Your task to perform on an android device: make emails show in primary in the gmail app Image 0: 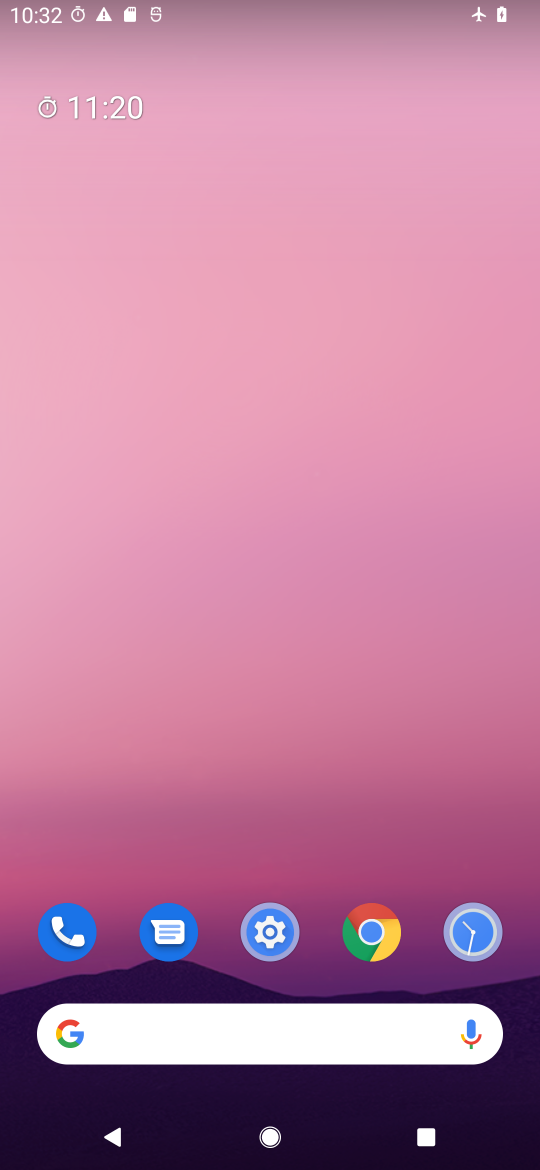
Step 0: drag from (282, 862) to (295, 198)
Your task to perform on an android device: make emails show in primary in the gmail app Image 1: 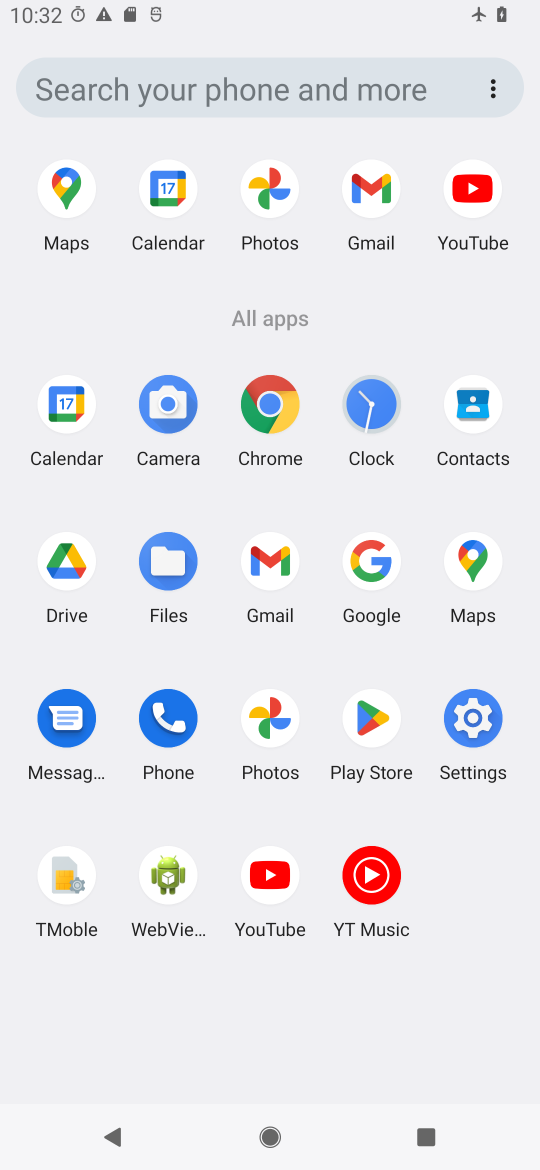
Step 1: click (257, 566)
Your task to perform on an android device: make emails show in primary in the gmail app Image 2: 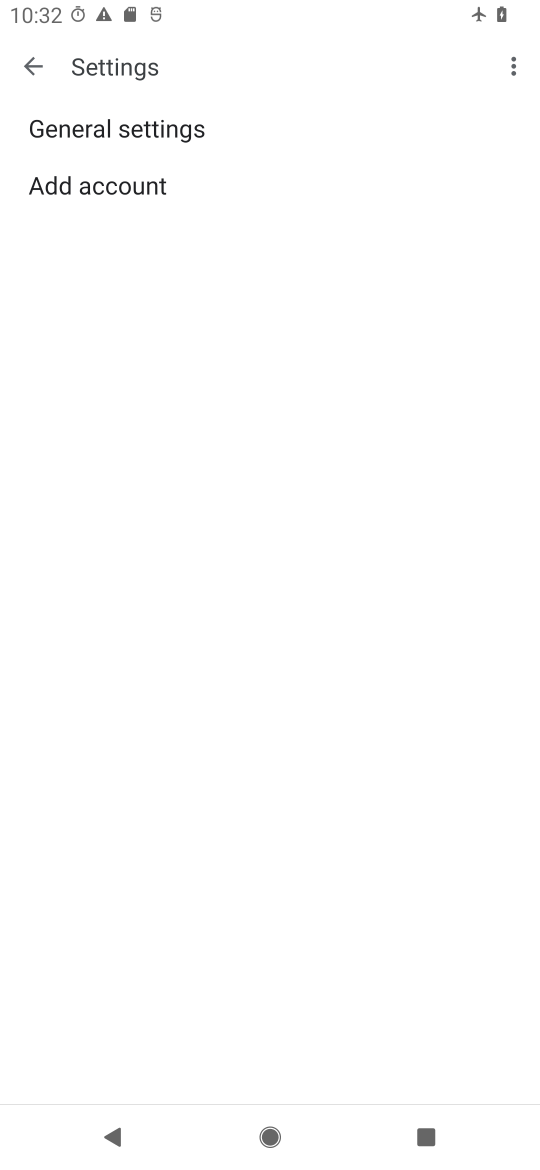
Step 2: click (37, 62)
Your task to perform on an android device: make emails show in primary in the gmail app Image 3: 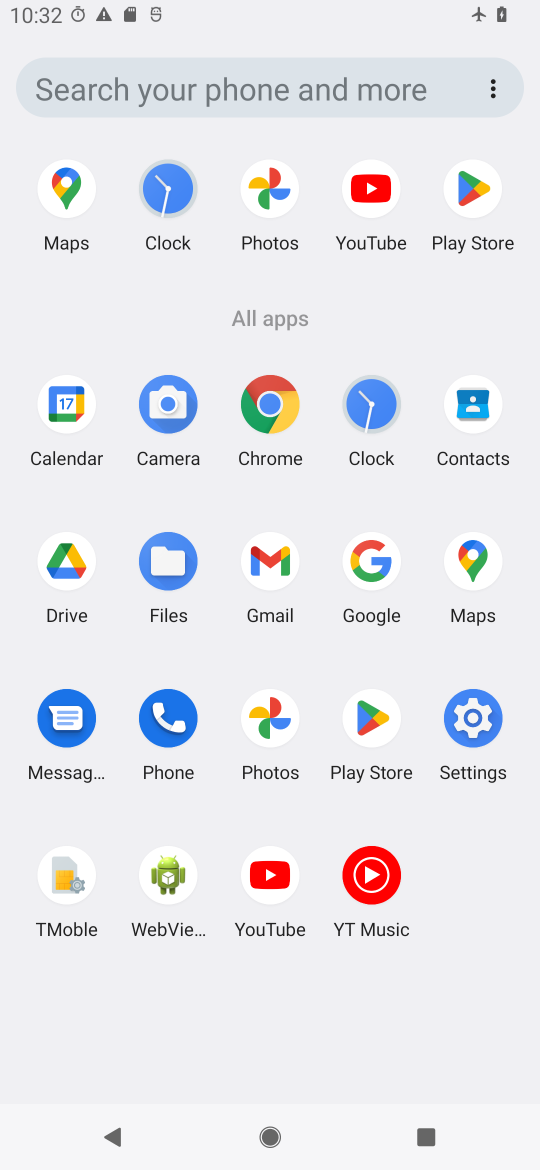
Step 3: click (267, 533)
Your task to perform on an android device: make emails show in primary in the gmail app Image 4: 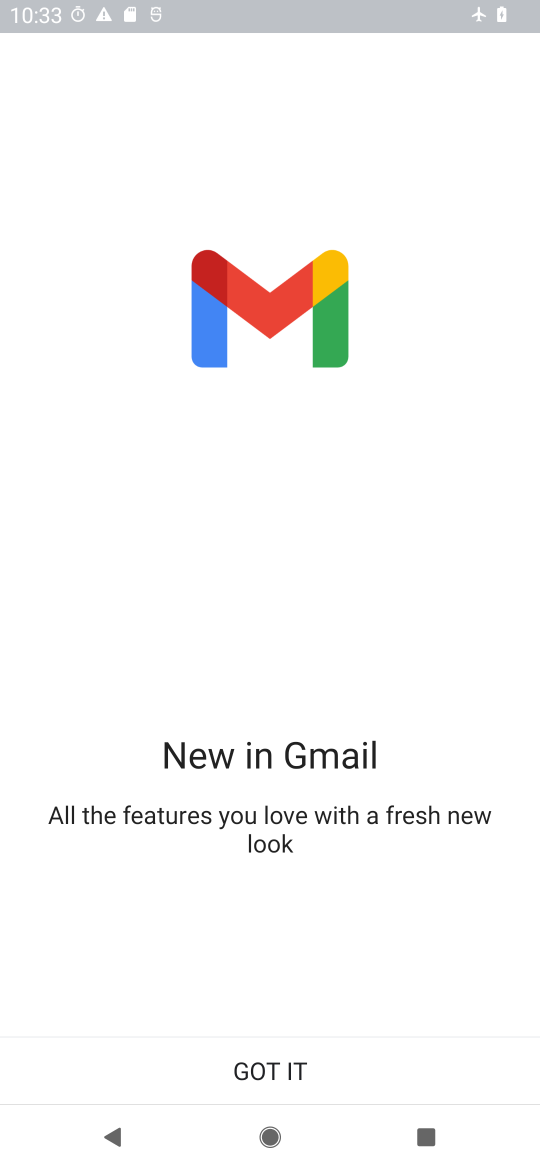
Step 4: click (269, 1065)
Your task to perform on an android device: make emails show in primary in the gmail app Image 5: 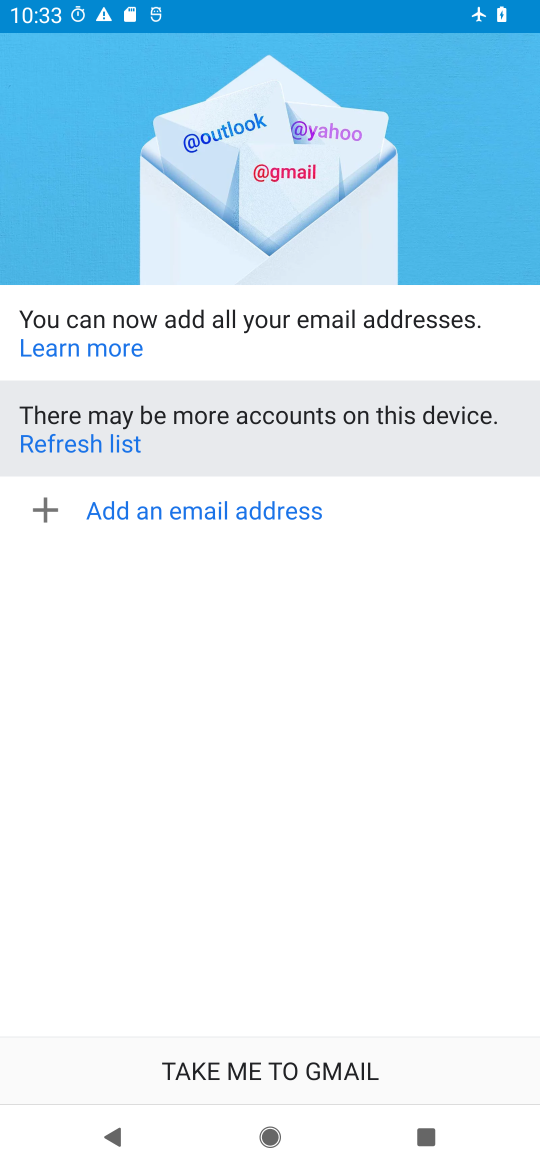
Step 5: click (270, 1061)
Your task to perform on an android device: make emails show in primary in the gmail app Image 6: 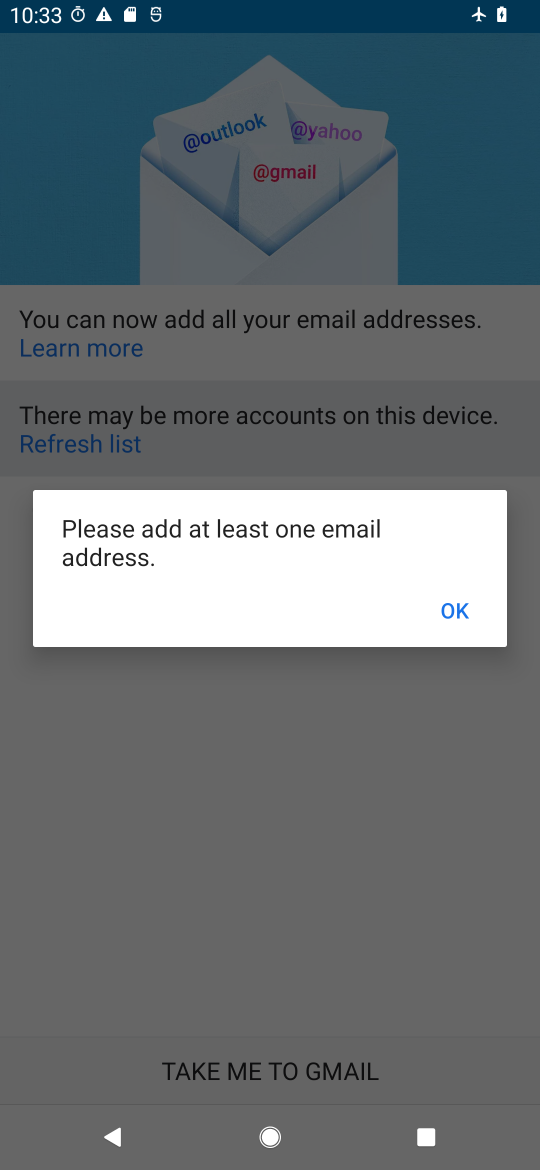
Step 6: task complete